Your task to perform on an android device: Go to sound settings Image 0: 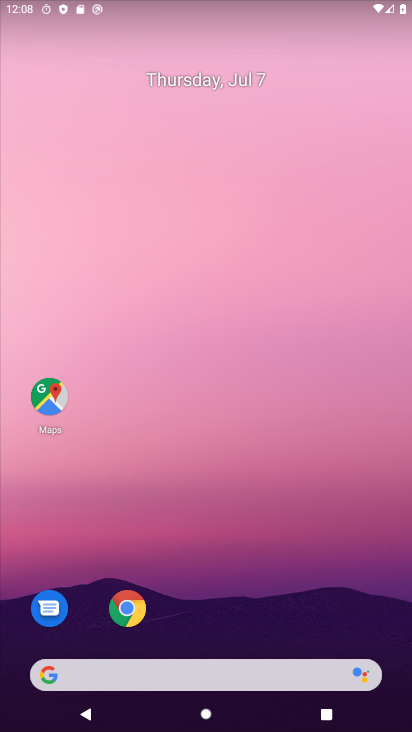
Step 0: drag from (272, 628) to (339, 110)
Your task to perform on an android device: Go to sound settings Image 1: 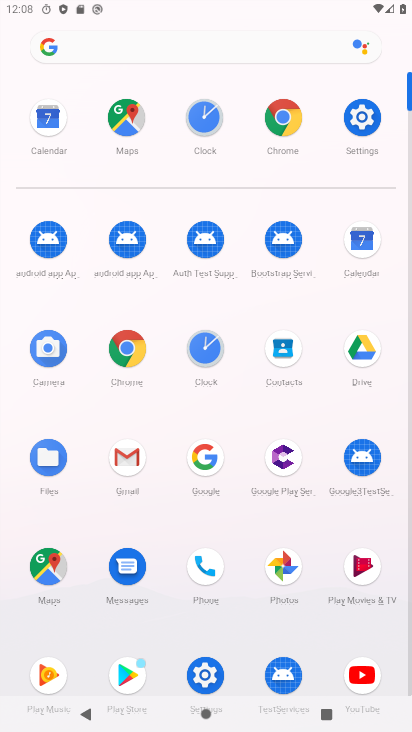
Step 1: click (367, 121)
Your task to perform on an android device: Go to sound settings Image 2: 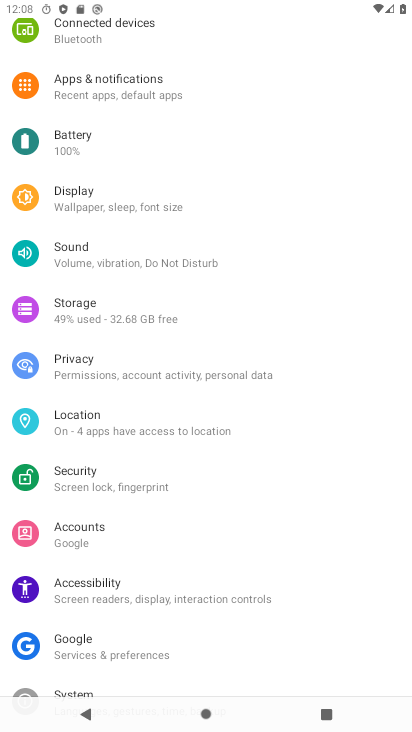
Step 2: click (131, 264)
Your task to perform on an android device: Go to sound settings Image 3: 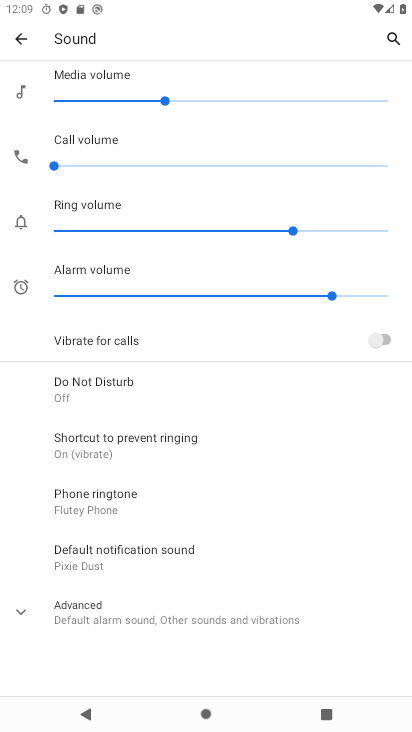
Step 3: task complete